Your task to perform on an android device: Search for Italian restaurants on Maps Image 0: 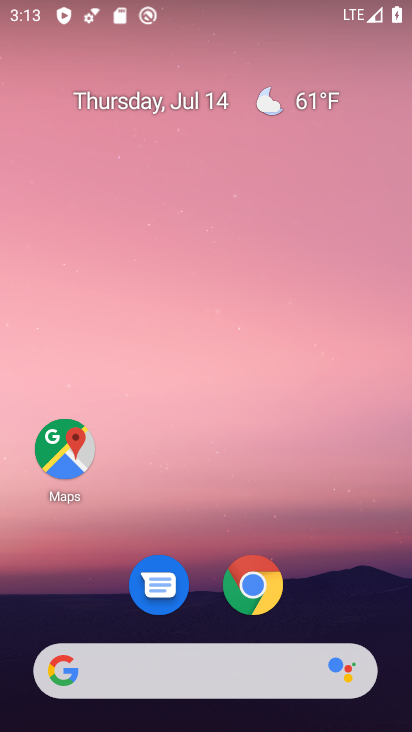
Step 0: drag from (332, 571) to (330, 534)
Your task to perform on an android device: Search for Italian restaurants on Maps Image 1: 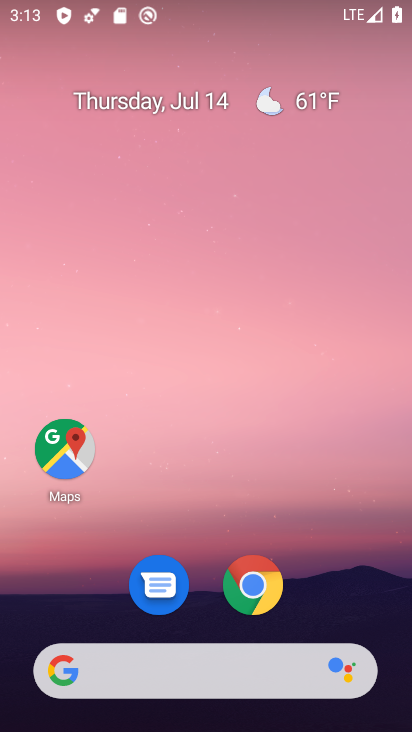
Step 1: click (68, 454)
Your task to perform on an android device: Search for Italian restaurants on Maps Image 2: 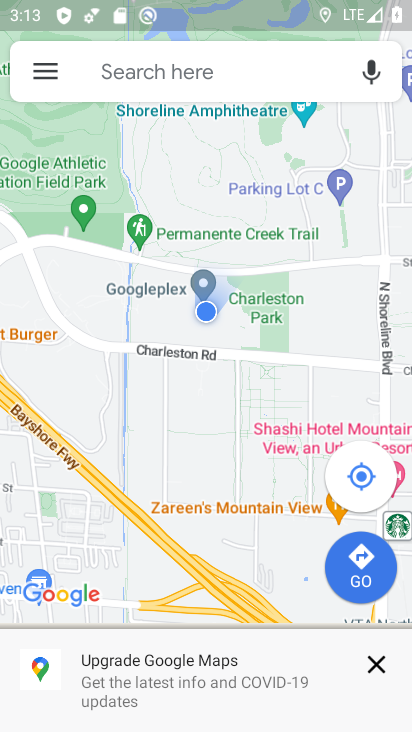
Step 2: click (165, 79)
Your task to perform on an android device: Search for Italian restaurants on Maps Image 3: 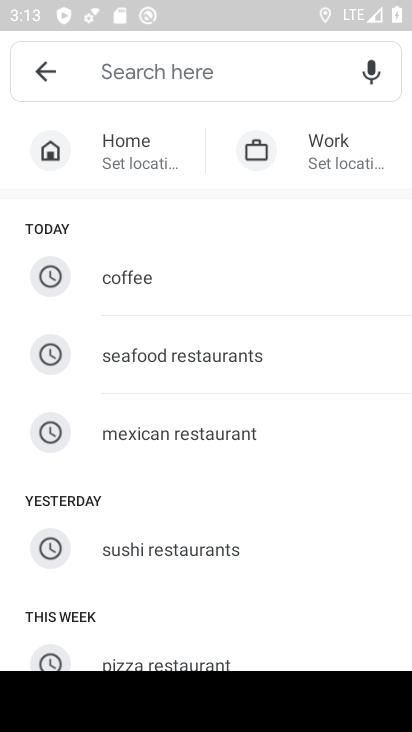
Step 3: drag from (212, 558) to (256, 262)
Your task to perform on an android device: Search for Italian restaurants on Maps Image 4: 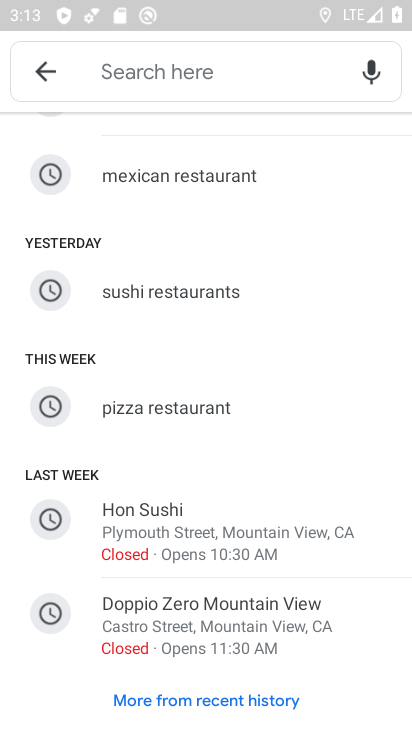
Step 4: click (228, 66)
Your task to perform on an android device: Search for Italian restaurants on Maps Image 5: 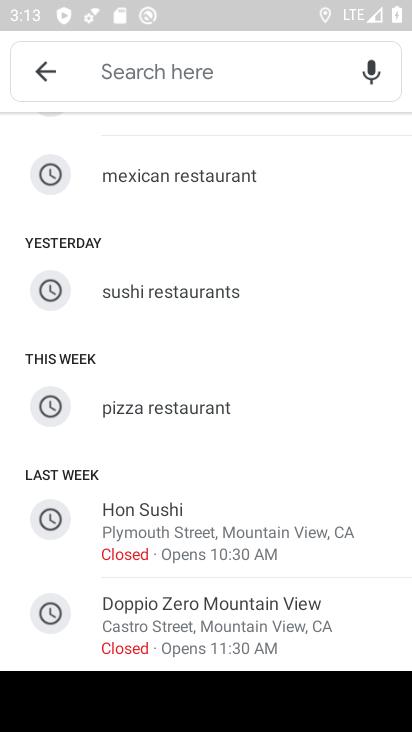
Step 5: type "Italian restaurants"
Your task to perform on an android device: Search for Italian restaurants on Maps Image 6: 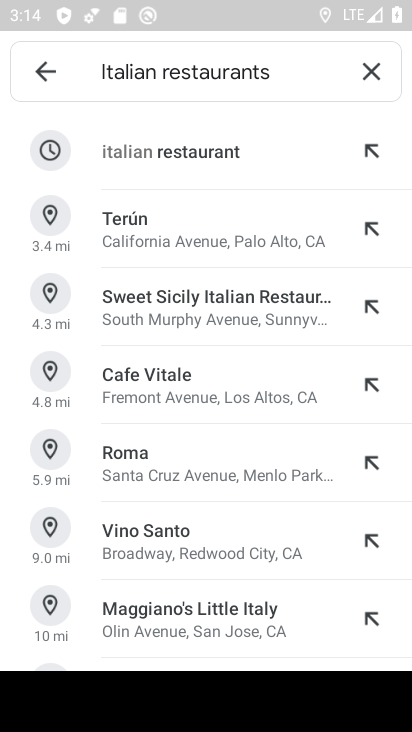
Step 6: click (223, 150)
Your task to perform on an android device: Search for Italian restaurants on Maps Image 7: 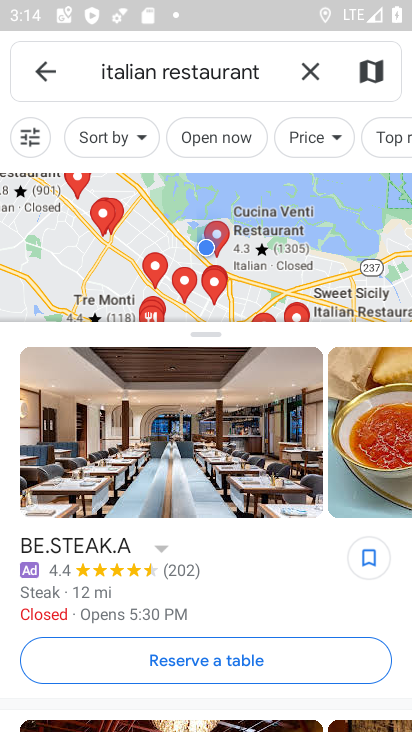
Step 7: task complete